Your task to perform on an android device: Open the Play Movies app and select the watchlist tab. Image 0: 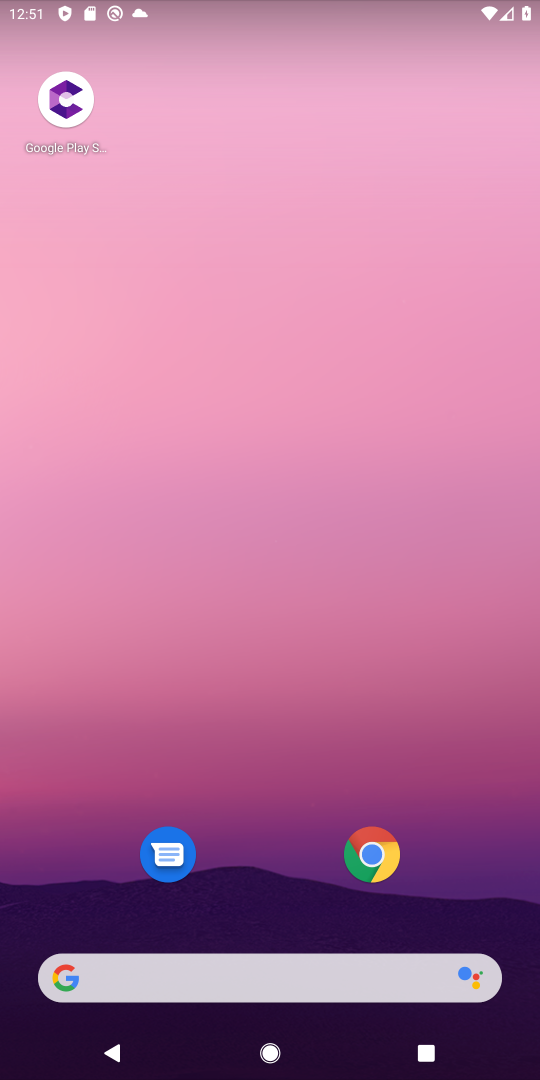
Step 0: drag from (264, 655) to (352, 2)
Your task to perform on an android device: Open the Play Movies app and select the watchlist tab. Image 1: 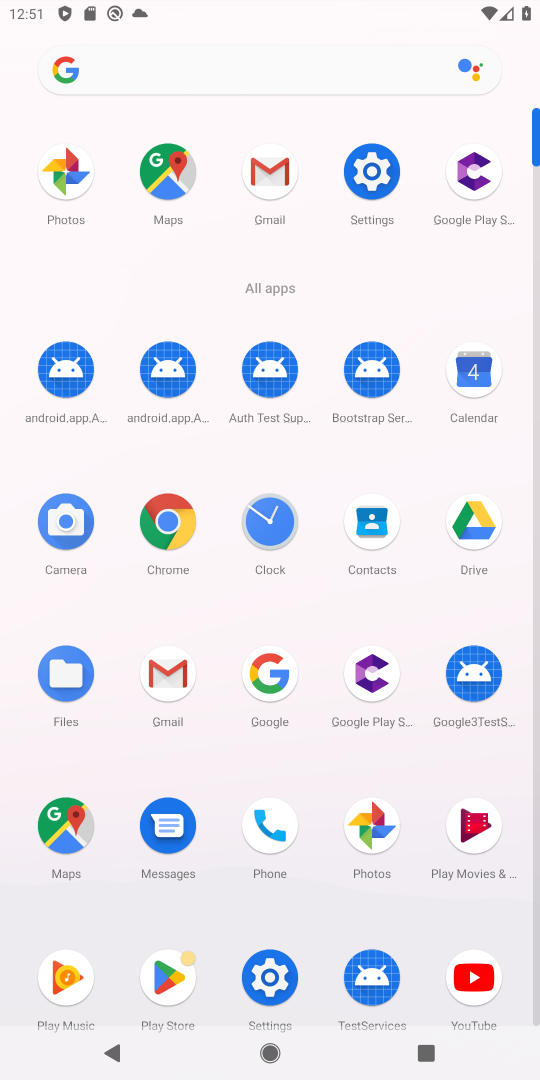
Step 1: click (464, 828)
Your task to perform on an android device: Open the Play Movies app and select the watchlist tab. Image 2: 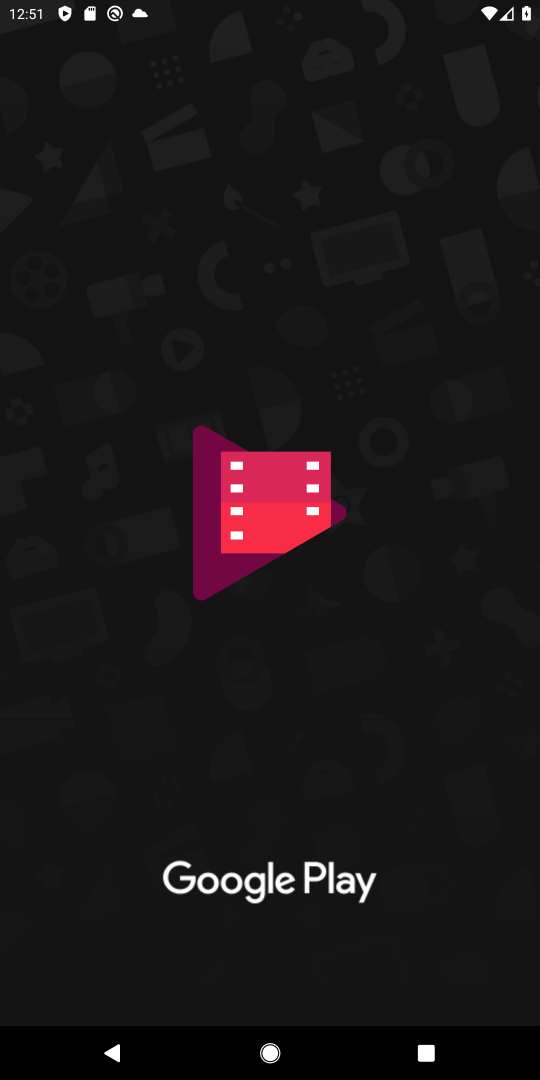
Step 2: task complete